Your task to perform on an android device: change timer sound Image 0: 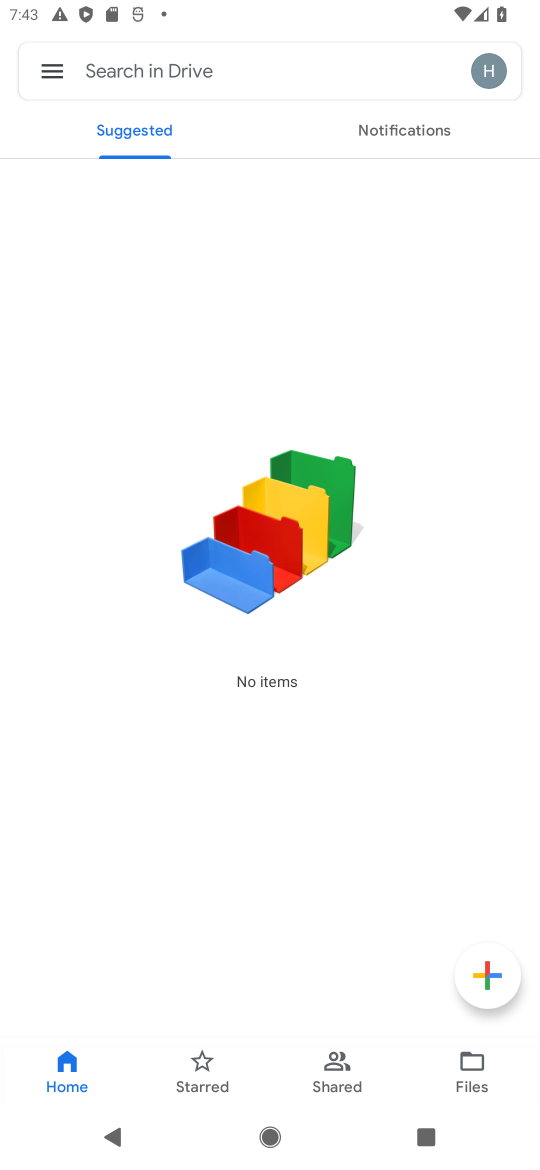
Step 0: press home button
Your task to perform on an android device: change timer sound Image 1: 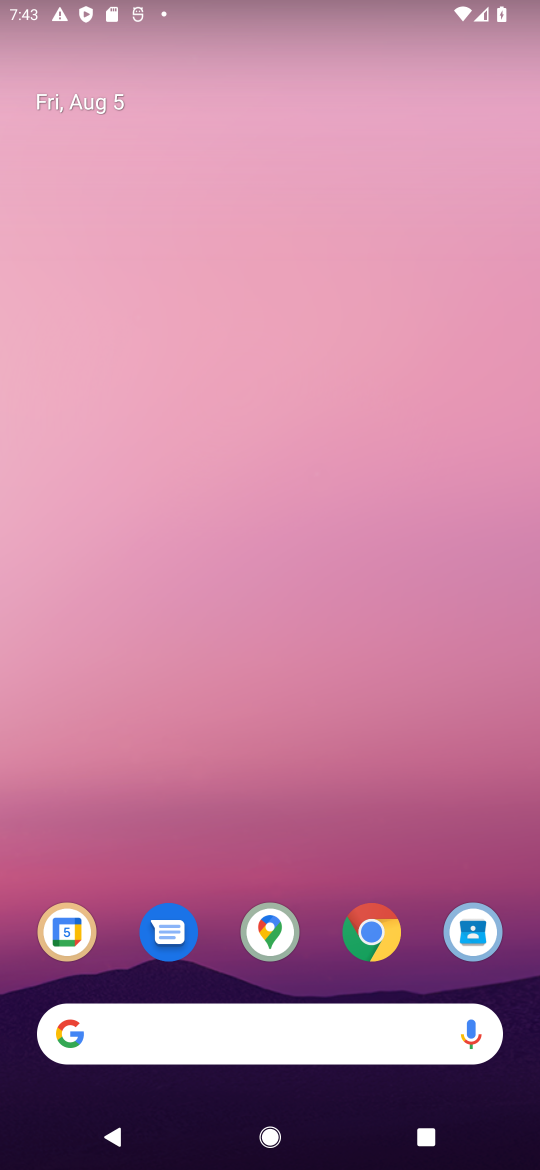
Step 1: drag from (207, 1023) to (221, 122)
Your task to perform on an android device: change timer sound Image 2: 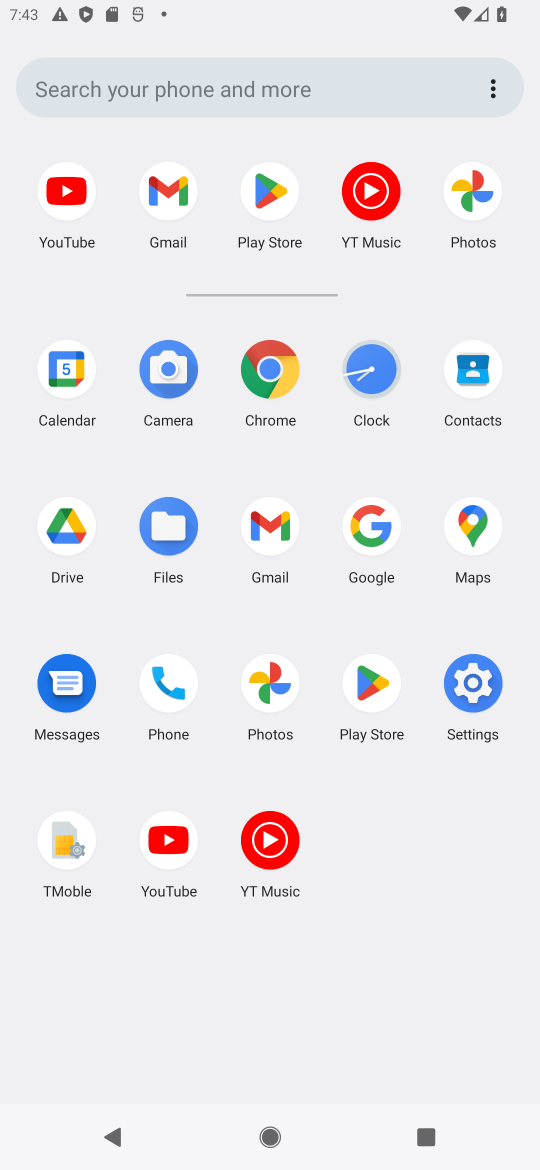
Step 2: click (368, 368)
Your task to perform on an android device: change timer sound Image 3: 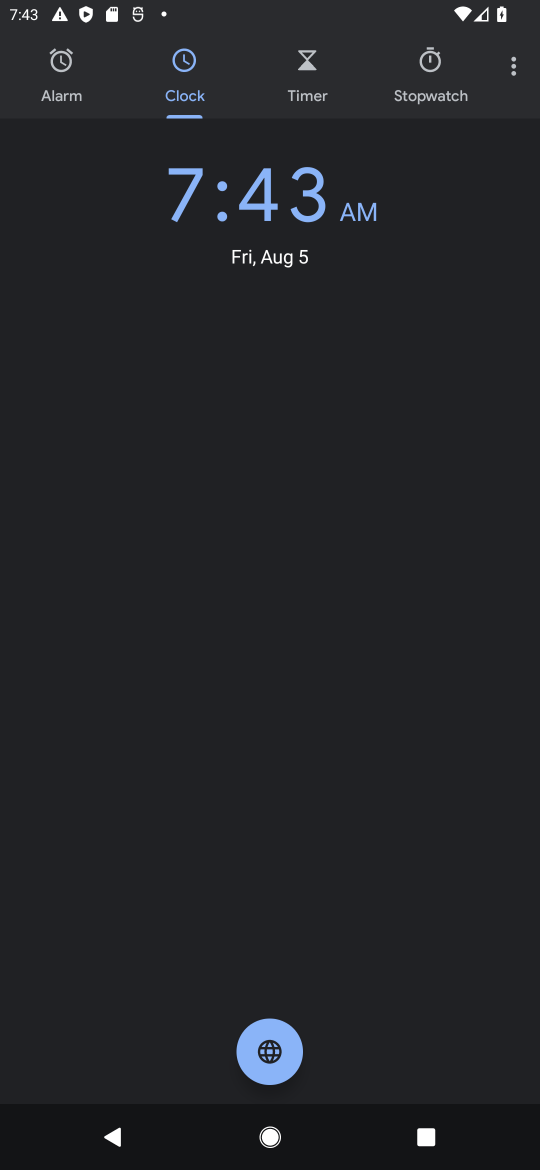
Step 3: click (513, 72)
Your task to perform on an android device: change timer sound Image 4: 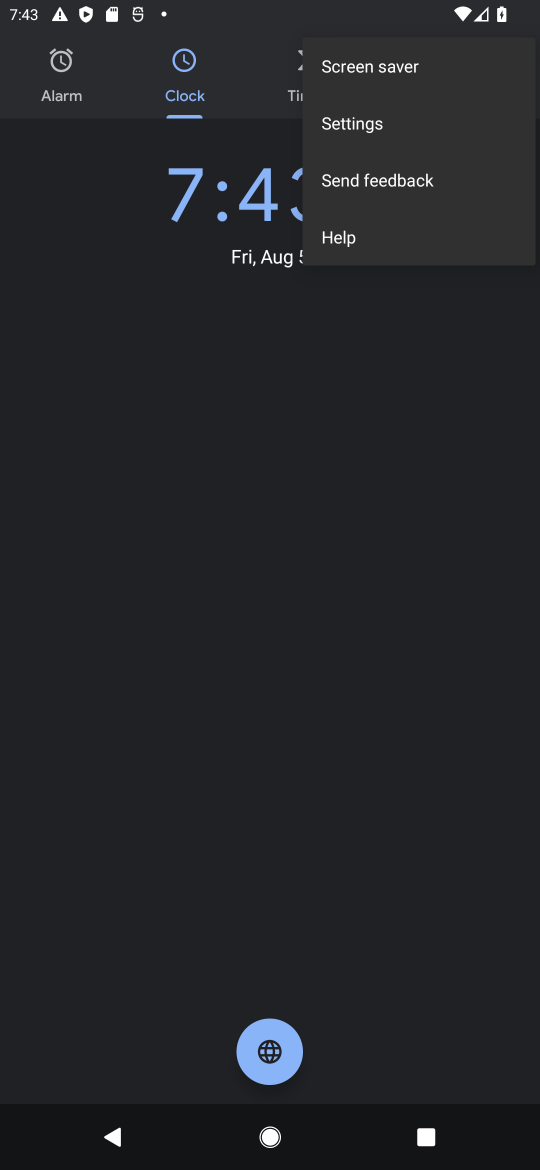
Step 4: click (355, 122)
Your task to perform on an android device: change timer sound Image 5: 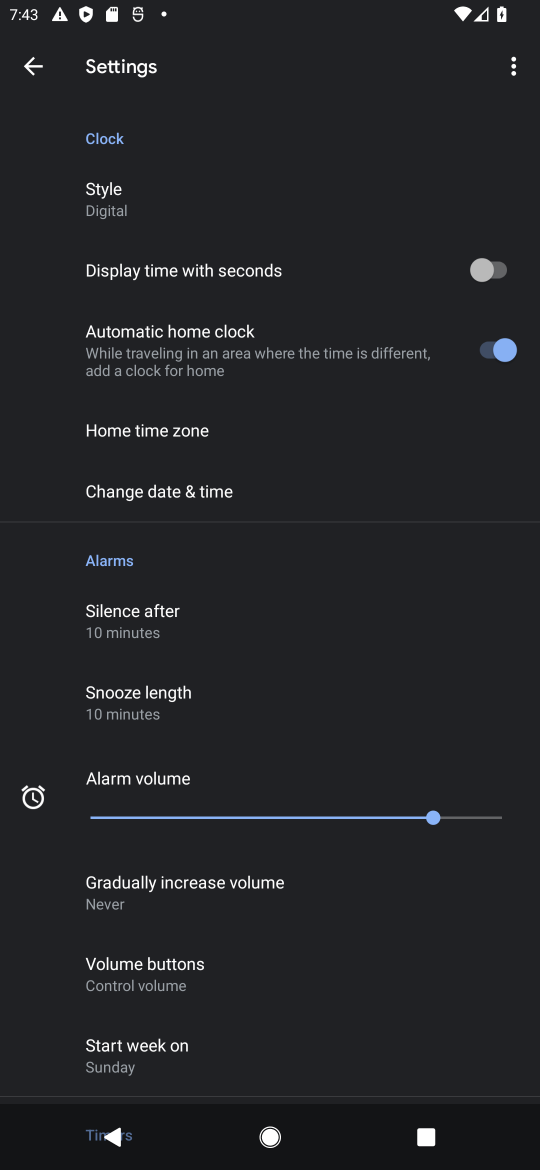
Step 5: drag from (262, 765) to (301, 617)
Your task to perform on an android device: change timer sound Image 6: 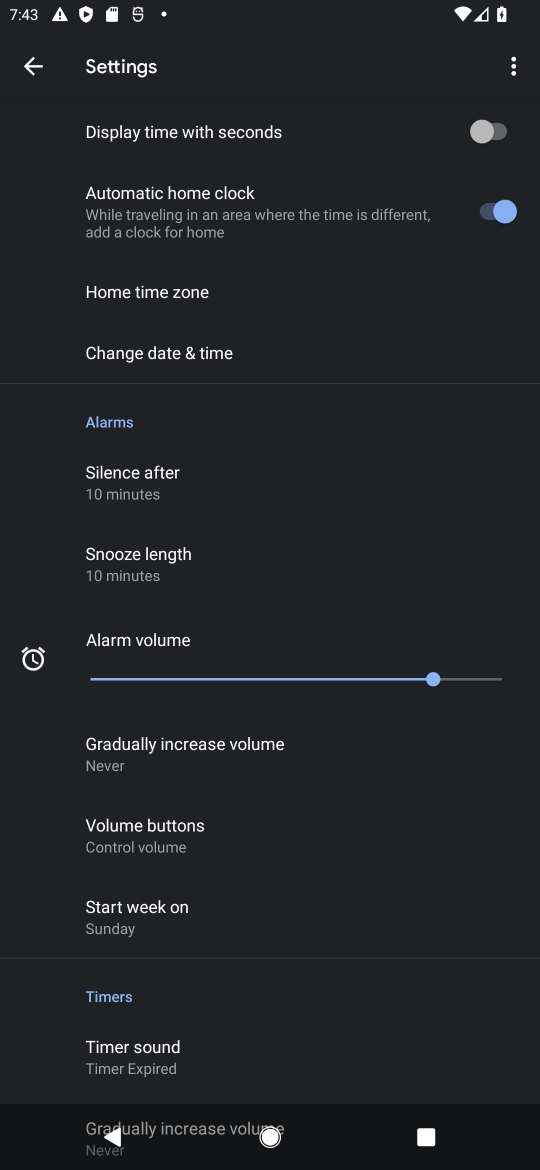
Step 6: drag from (275, 860) to (348, 709)
Your task to perform on an android device: change timer sound Image 7: 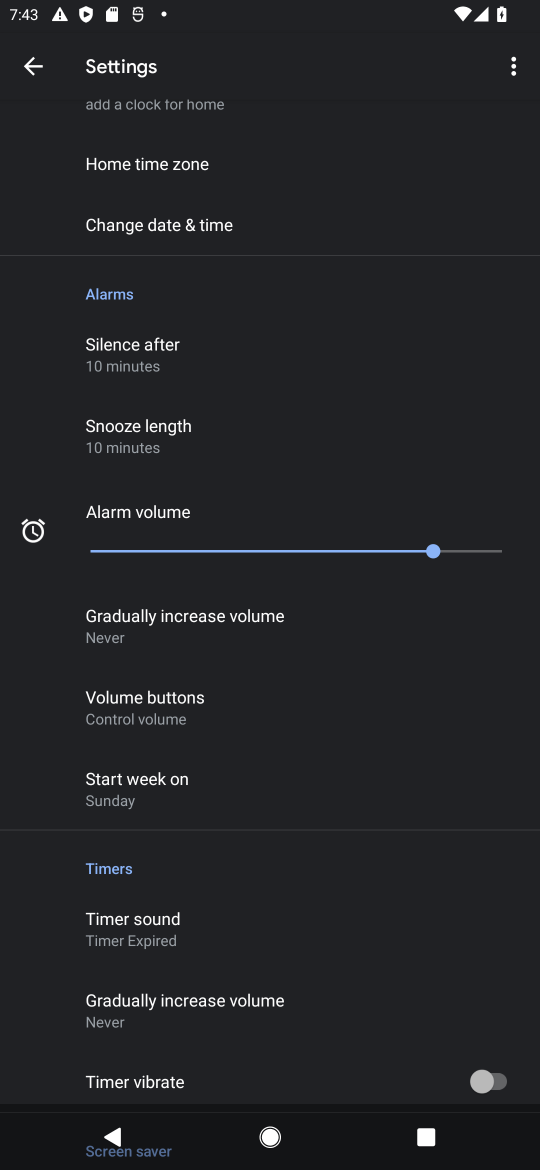
Step 7: click (179, 932)
Your task to perform on an android device: change timer sound Image 8: 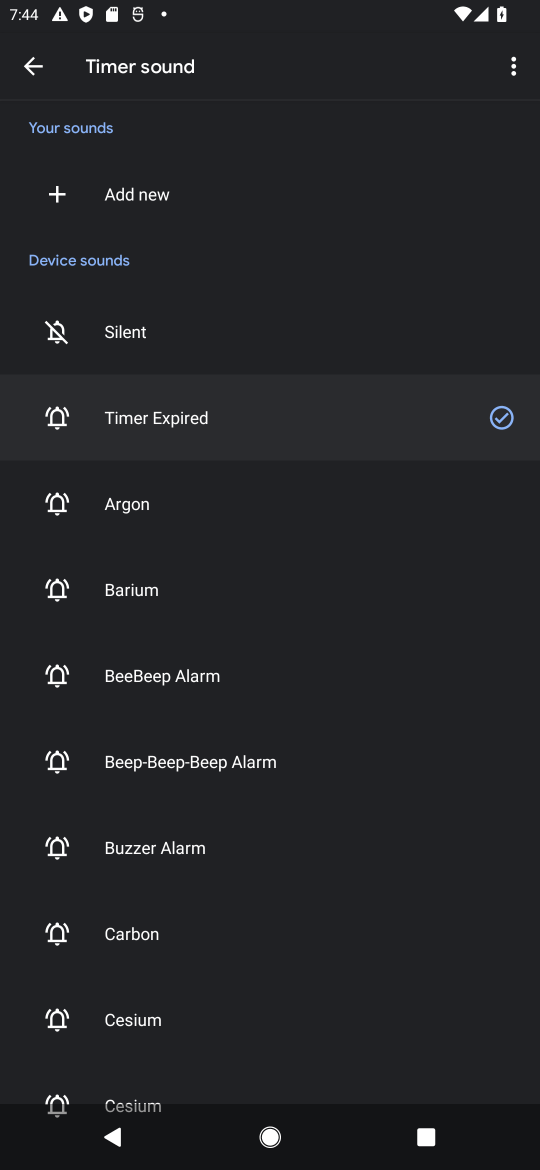
Step 8: drag from (213, 868) to (303, 692)
Your task to perform on an android device: change timer sound Image 9: 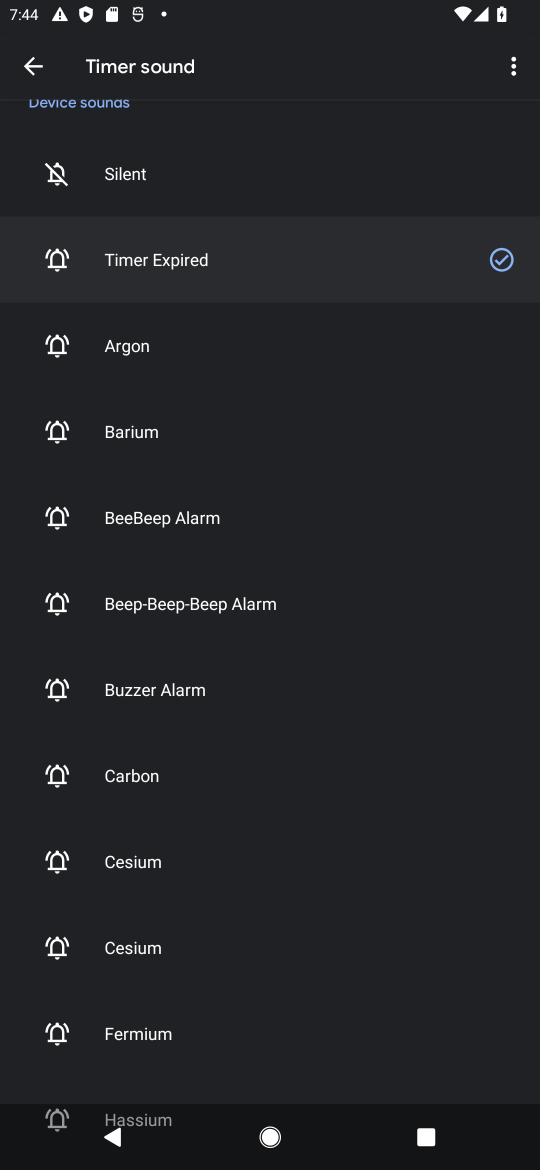
Step 9: drag from (241, 878) to (333, 656)
Your task to perform on an android device: change timer sound Image 10: 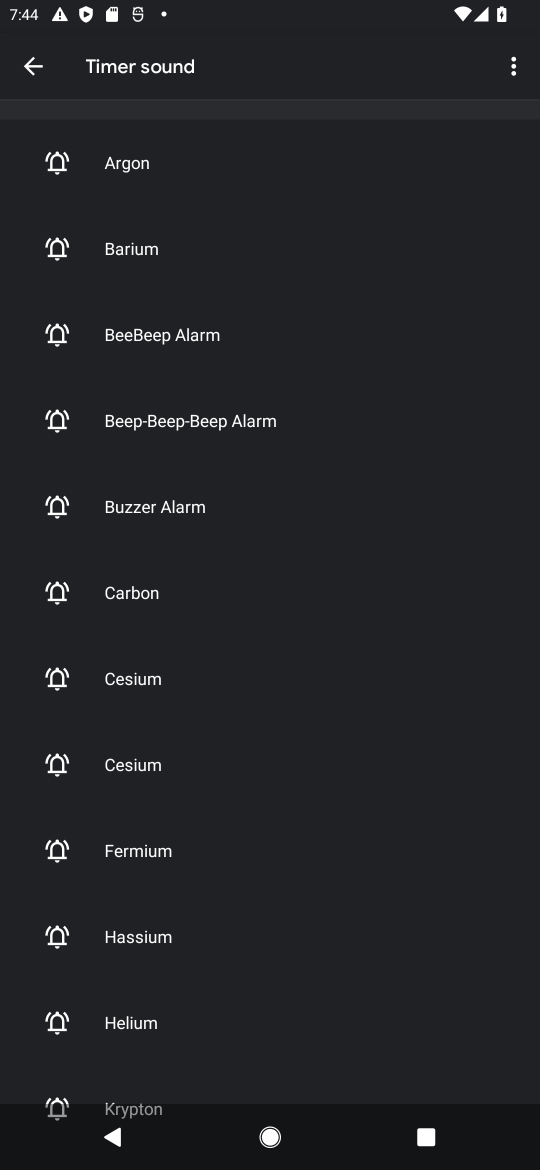
Step 10: click (125, 864)
Your task to perform on an android device: change timer sound Image 11: 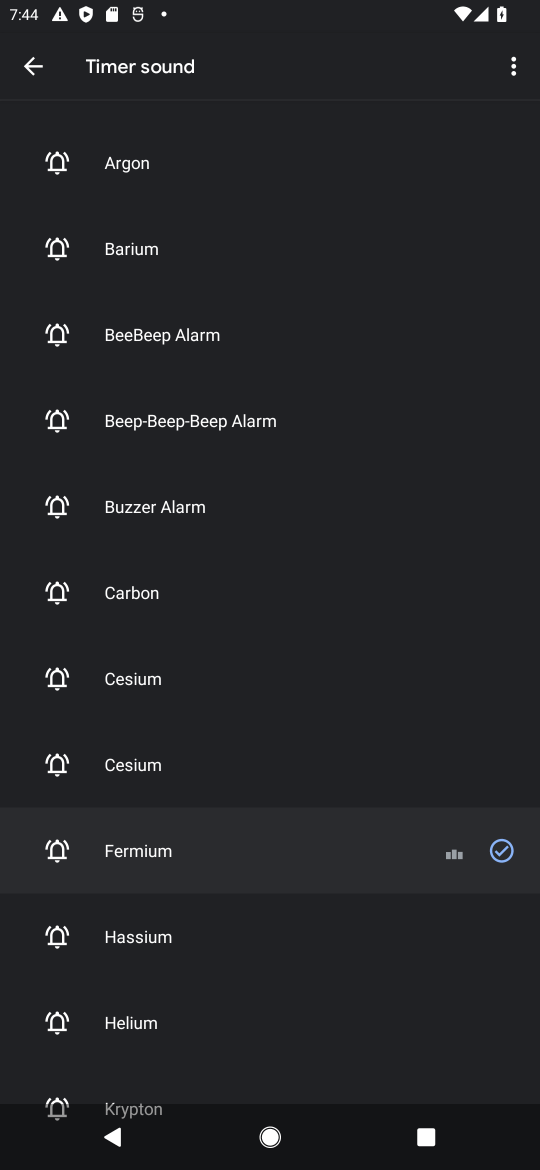
Step 11: task complete